Your task to perform on an android device: empty trash in the gmail app Image 0: 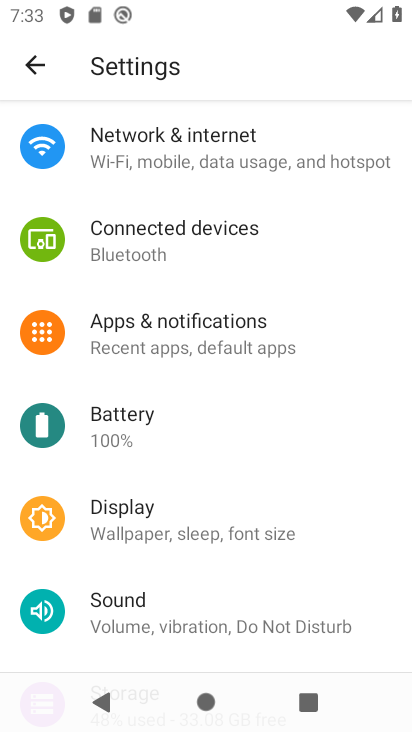
Step 0: press home button
Your task to perform on an android device: empty trash in the gmail app Image 1: 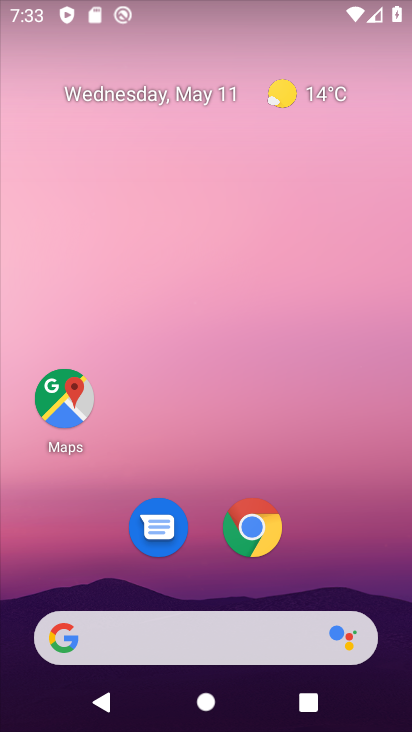
Step 1: drag from (196, 563) to (189, 133)
Your task to perform on an android device: empty trash in the gmail app Image 2: 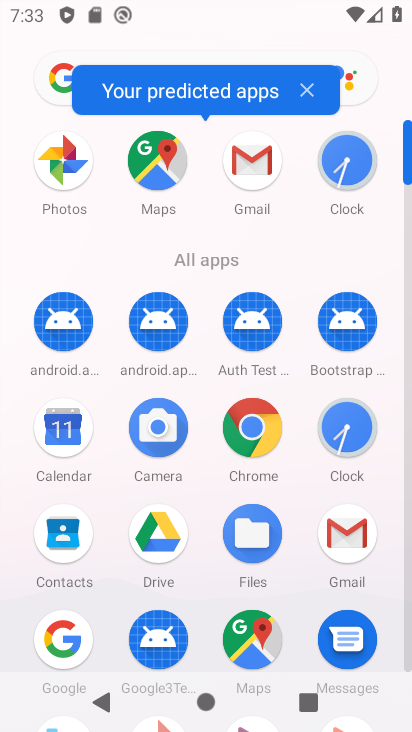
Step 2: click (243, 161)
Your task to perform on an android device: empty trash in the gmail app Image 3: 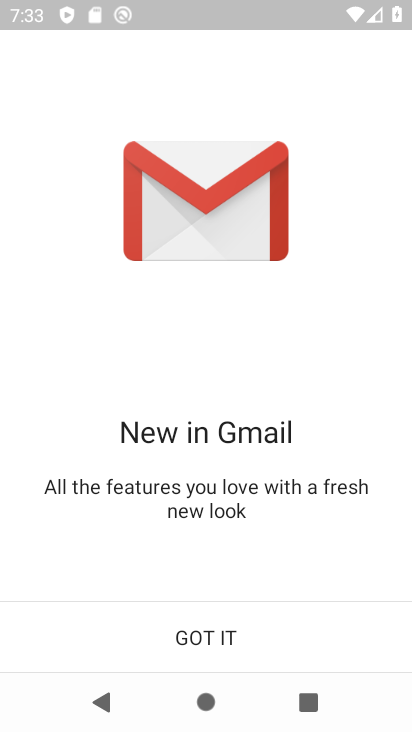
Step 3: click (160, 617)
Your task to perform on an android device: empty trash in the gmail app Image 4: 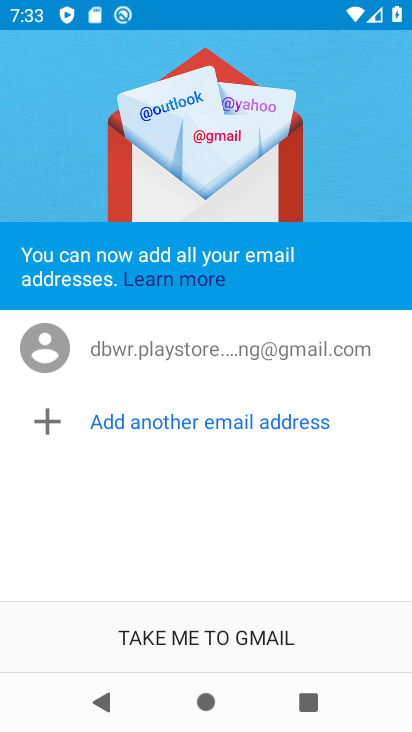
Step 4: click (160, 617)
Your task to perform on an android device: empty trash in the gmail app Image 5: 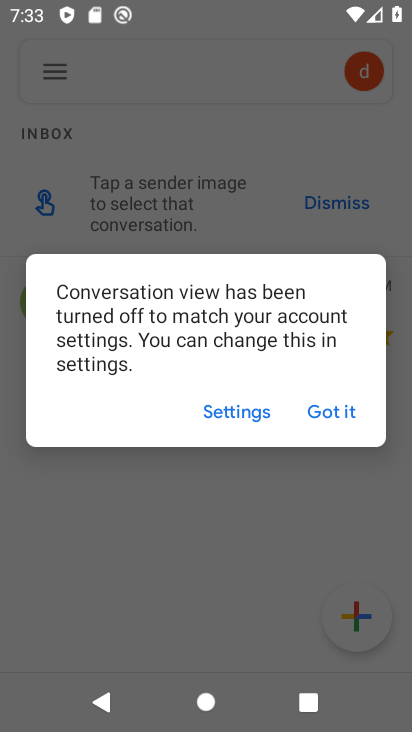
Step 5: click (328, 407)
Your task to perform on an android device: empty trash in the gmail app Image 6: 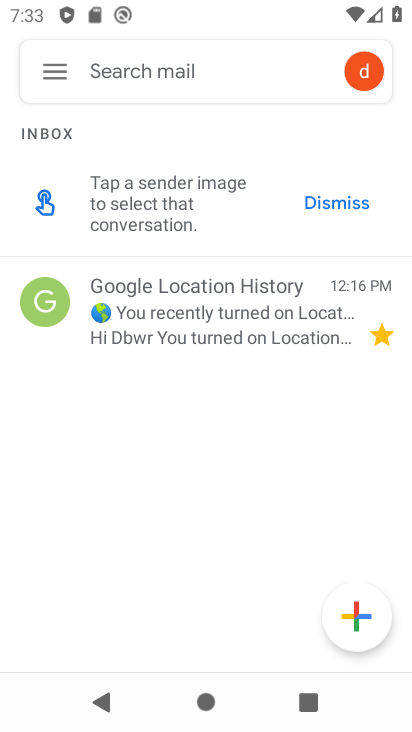
Step 6: click (47, 78)
Your task to perform on an android device: empty trash in the gmail app Image 7: 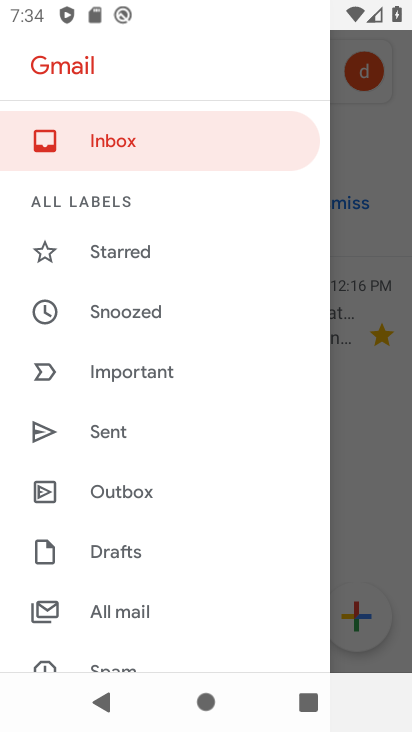
Step 7: drag from (118, 608) to (197, 176)
Your task to perform on an android device: empty trash in the gmail app Image 8: 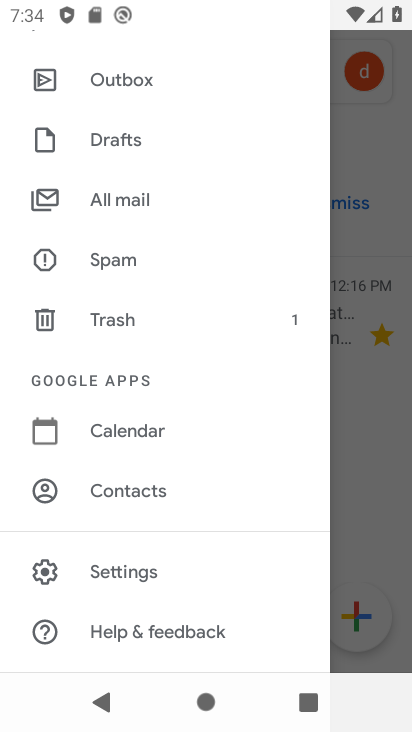
Step 8: click (113, 323)
Your task to perform on an android device: empty trash in the gmail app Image 9: 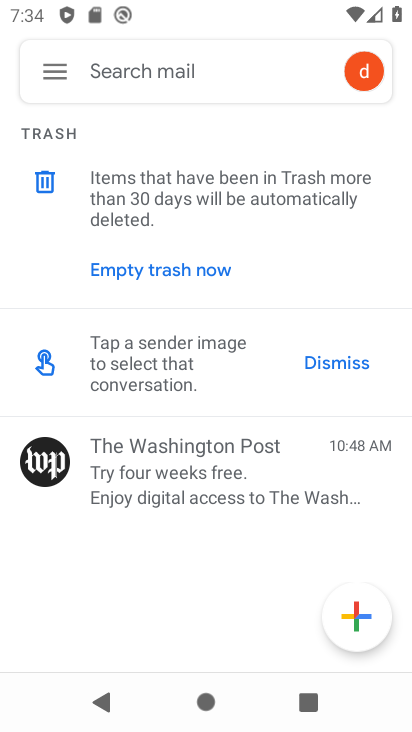
Step 9: click (148, 272)
Your task to perform on an android device: empty trash in the gmail app Image 10: 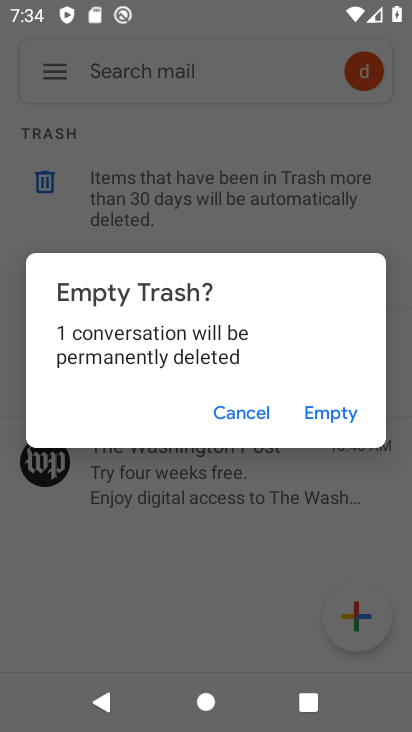
Step 10: click (319, 420)
Your task to perform on an android device: empty trash in the gmail app Image 11: 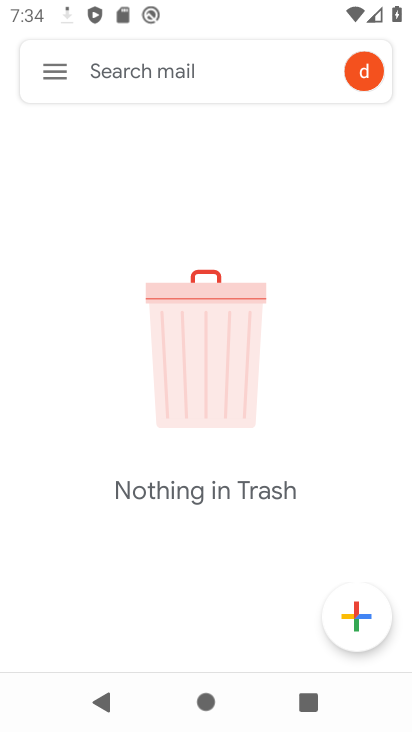
Step 11: task complete